Your task to perform on an android device: change keyboard looks Image 0: 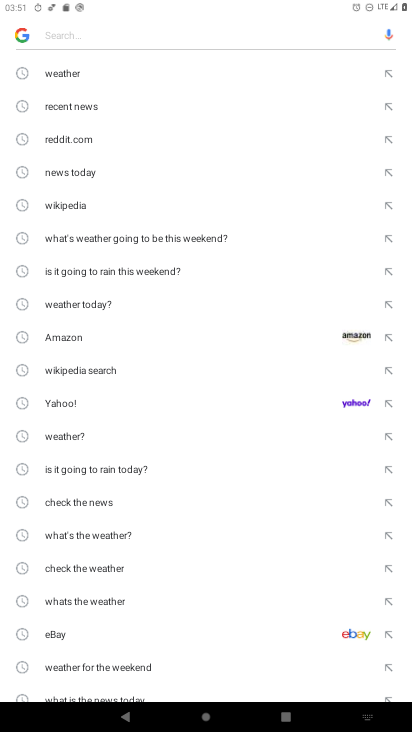
Step 0: press home button
Your task to perform on an android device: change keyboard looks Image 1: 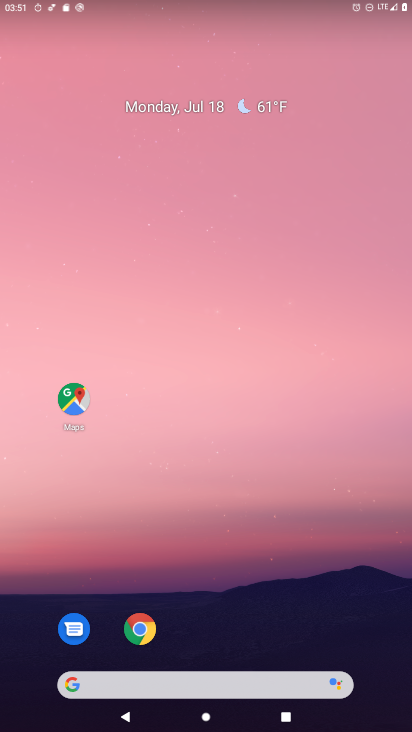
Step 1: drag from (196, 678) to (299, 55)
Your task to perform on an android device: change keyboard looks Image 2: 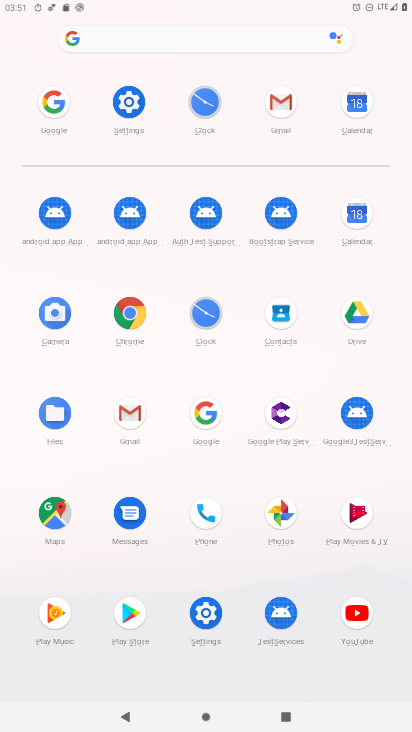
Step 2: click (205, 613)
Your task to perform on an android device: change keyboard looks Image 3: 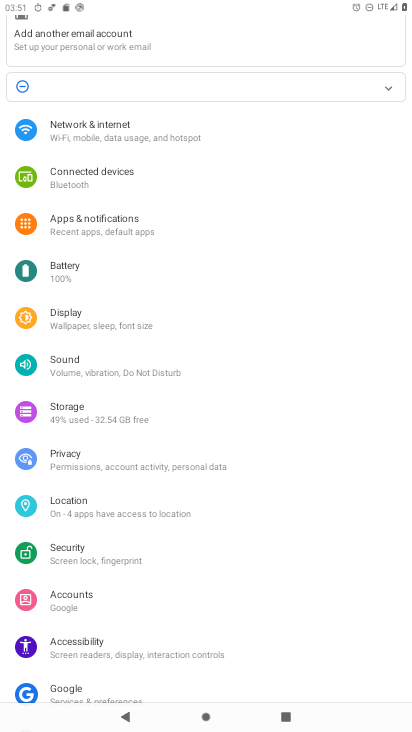
Step 3: drag from (164, 610) to (243, 486)
Your task to perform on an android device: change keyboard looks Image 4: 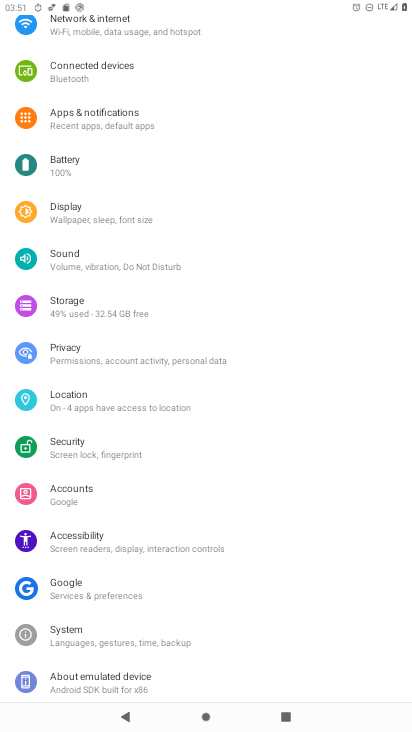
Step 4: drag from (157, 594) to (226, 499)
Your task to perform on an android device: change keyboard looks Image 5: 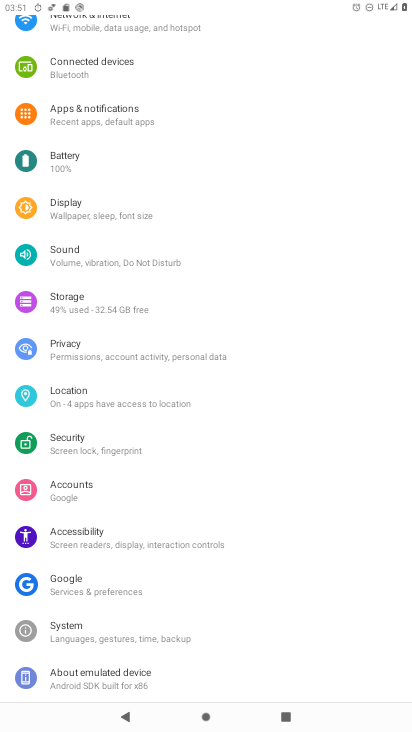
Step 5: click (131, 638)
Your task to perform on an android device: change keyboard looks Image 6: 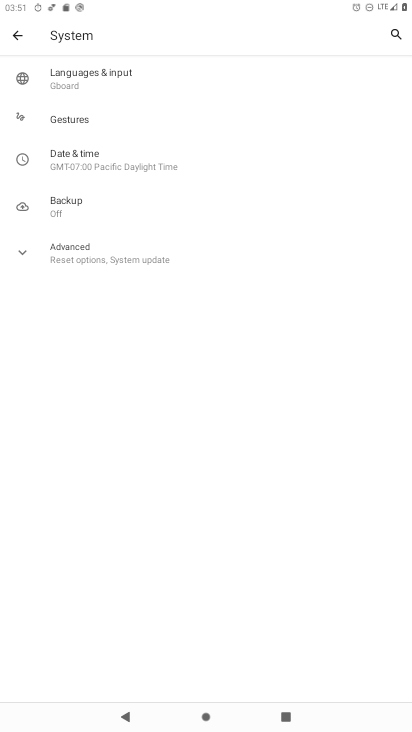
Step 6: click (68, 85)
Your task to perform on an android device: change keyboard looks Image 7: 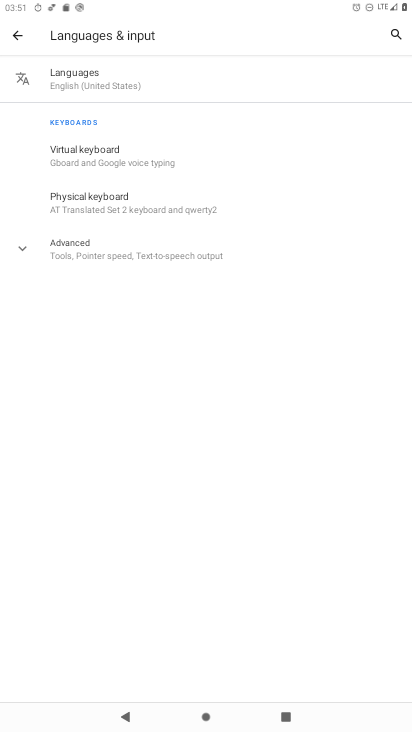
Step 7: click (83, 157)
Your task to perform on an android device: change keyboard looks Image 8: 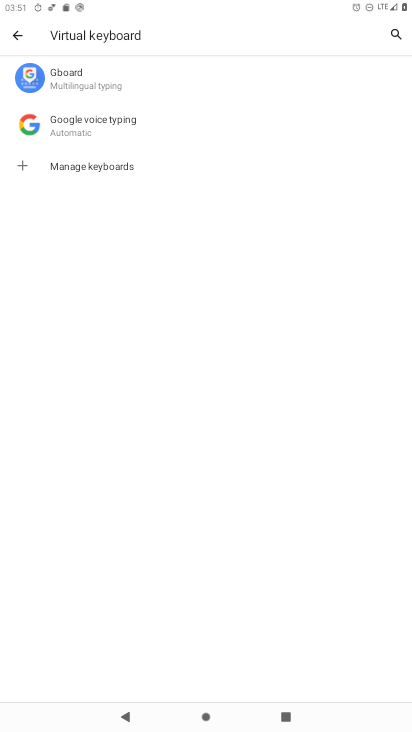
Step 8: click (86, 80)
Your task to perform on an android device: change keyboard looks Image 9: 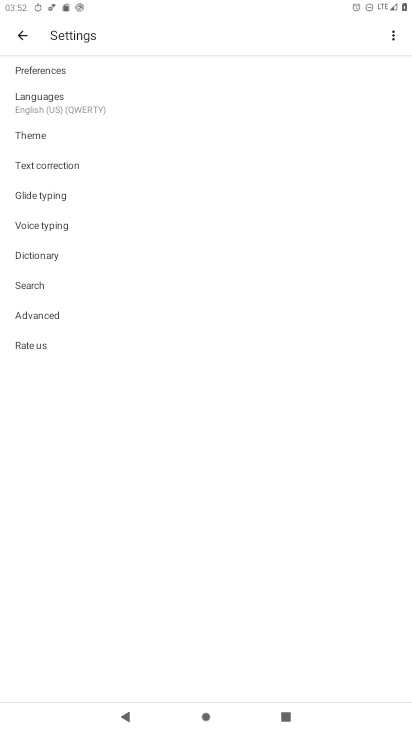
Step 9: click (36, 137)
Your task to perform on an android device: change keyboard looks Image 10: 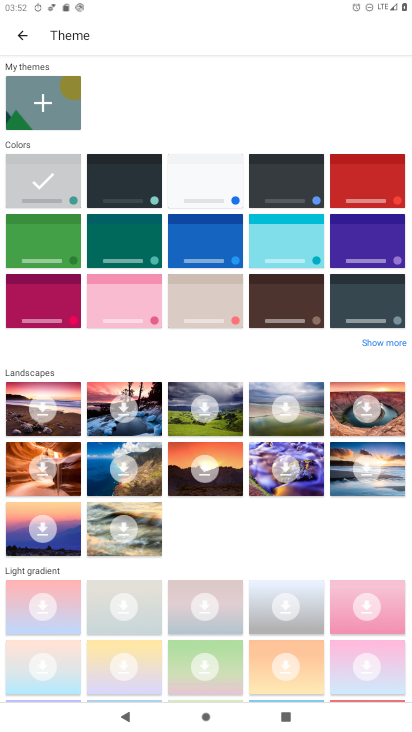
Step 10: click (198, 182)
Your task to perform on an android device: change keyboard looks Image 11: 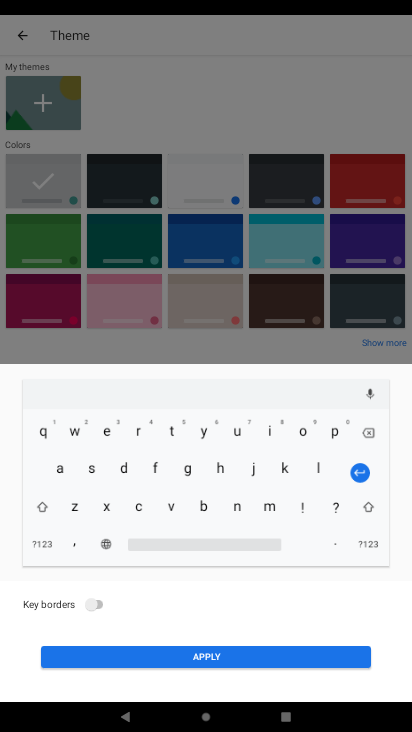
Step 11: click (89, 603)
Your task to perform on an android device: change keyboard looks Image 12: 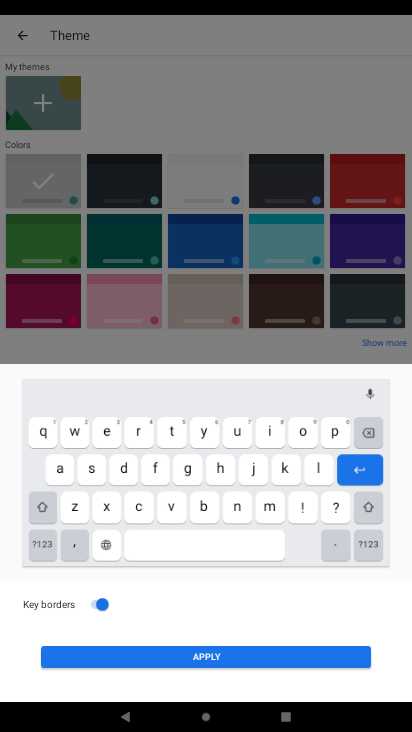
Step 12: click (204, 651)
Your task to perform on an android device: change keyboard looks Image 13: 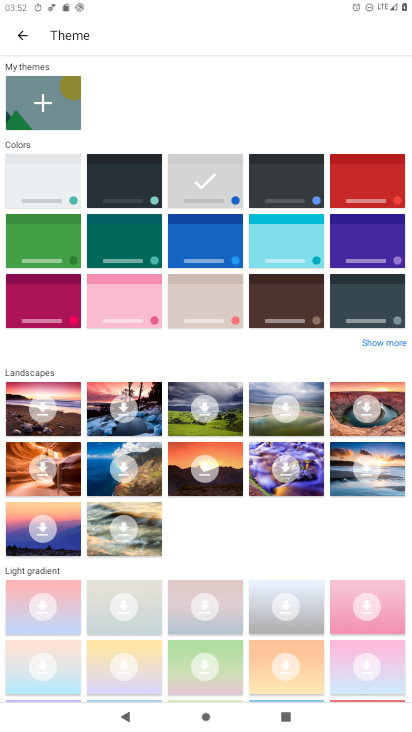
Step 13: task complete